Your task to perform on an android device: Open battery settings Image 0: 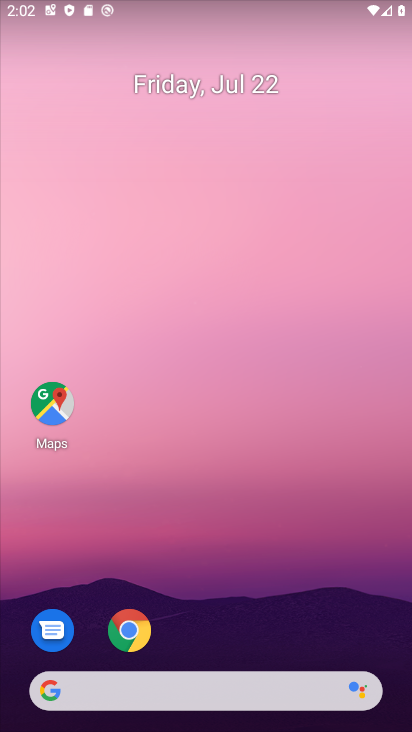
Step 0: press home button
Your task to perform on an android device: Open battery settings Image 1: 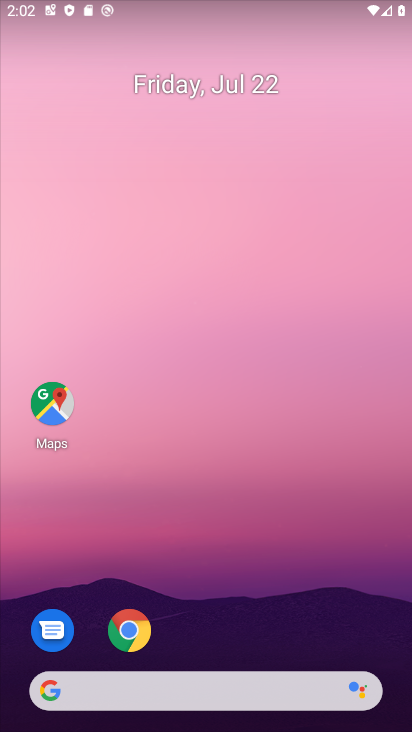
Step 1: drag from (225, 656) to (188, 11)
Your task to perform on an android device: Open battery settings Image 2: 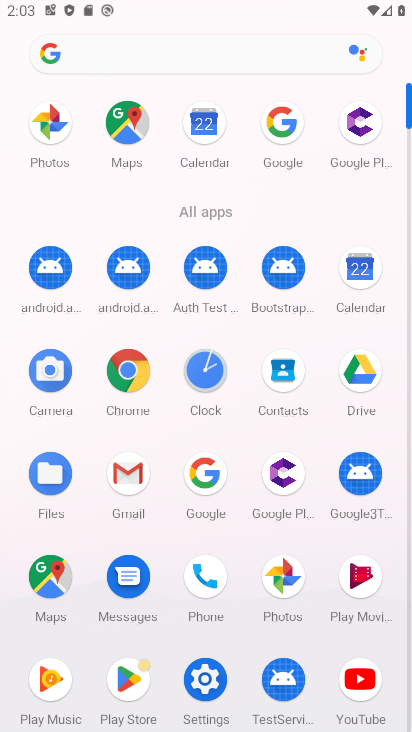
Step 2: click (205, 680)
Your task to perform on an android device: Open battery settings Image 3: 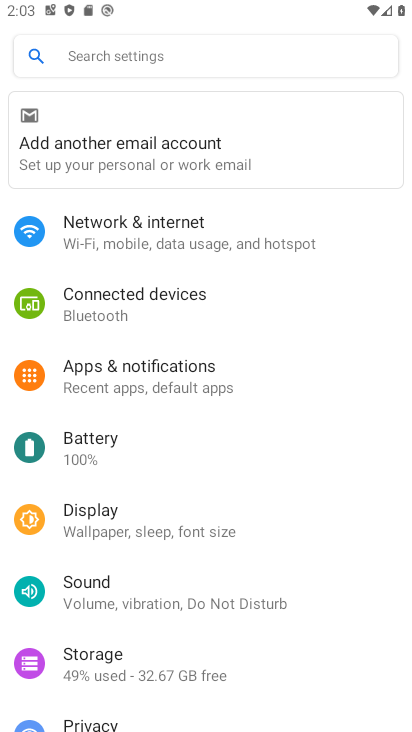
Step 3: click (111, 447)
Your task to perform on an android device: Open battery settings Image 4: 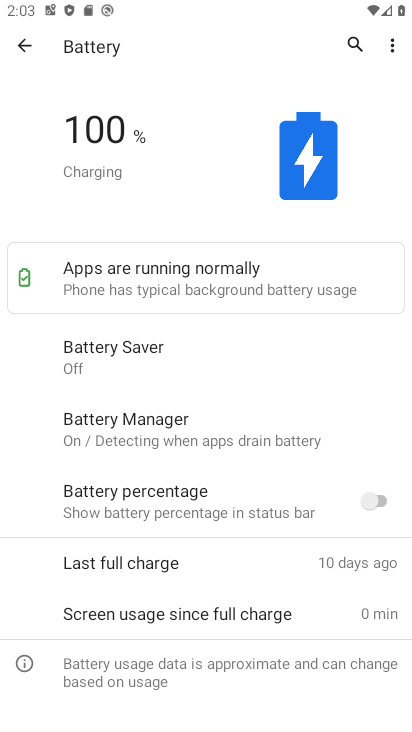
Step 4: task complete